Your task to perform on an android device: turn off location history Image 0: 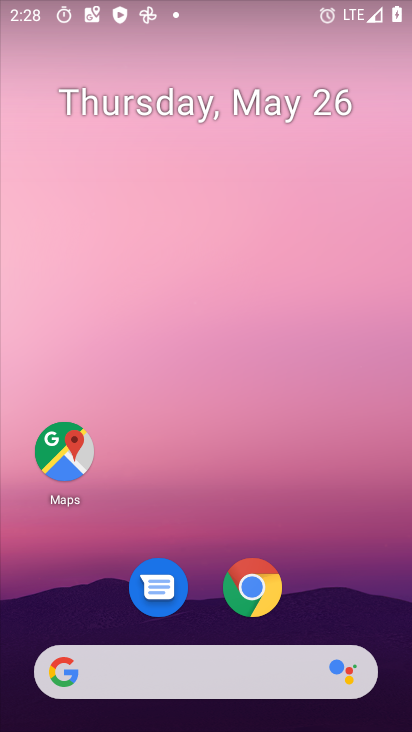
Step 0: drag from (363, 589) to (360, 208)
Your task to perform on an android device: turn off location history Image 1: 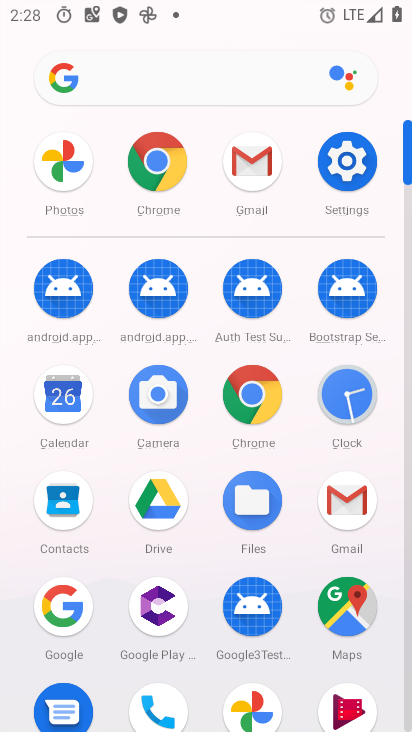
Step 1: click (352, 174)
Your task to perform on an android device: turn off location history Image 2: 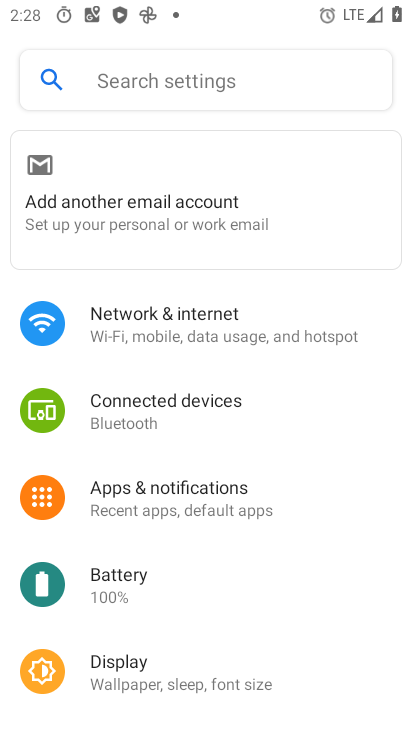
Step 2: drag from (350, 431) to (363, 345)
Your task to perform on an android device: turn off location history Image 3: 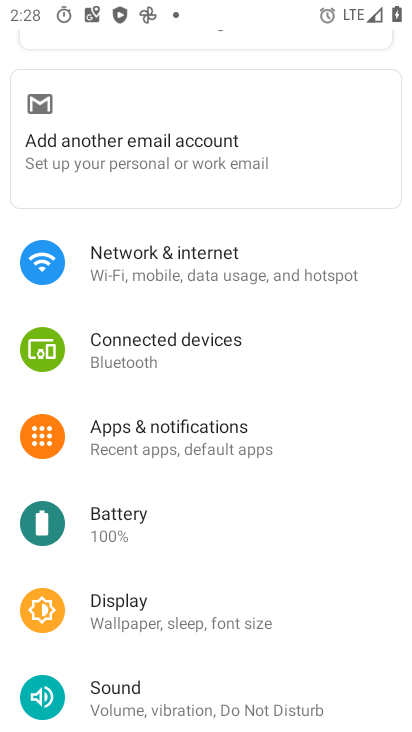
Step 3: drag from (347, 442) to (334, 349)
Your task to perform on an android device: turn off location history Image 4: 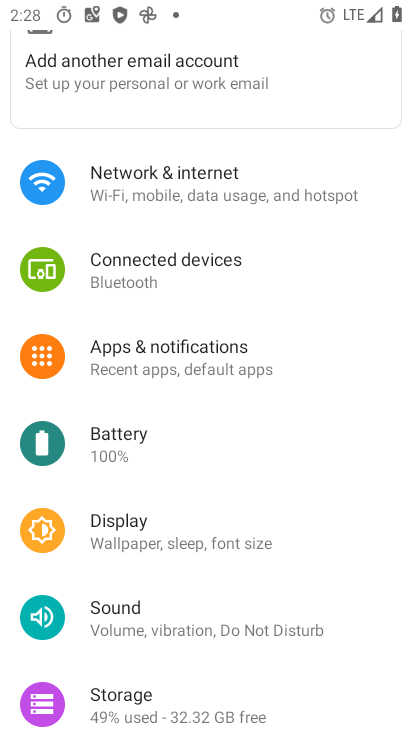
Step 4: drag from (319, 467) to (320, 366)
Your task to perform on an android device: turn off location history Image 5: 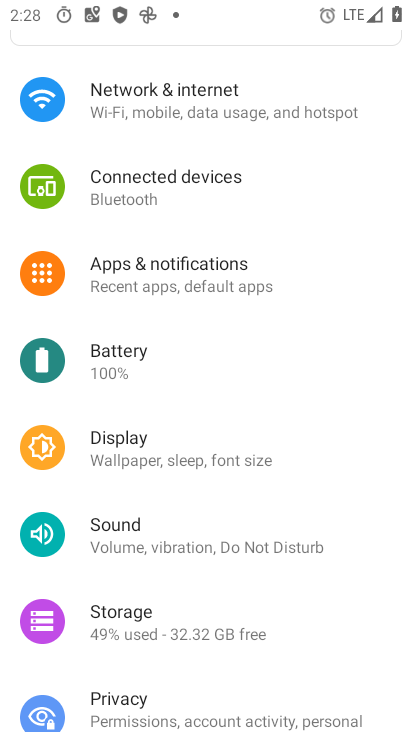
Step 5: drag from (337, 481) to (353, 396)
Your task to perform on an android device: turn off location history Image 6: 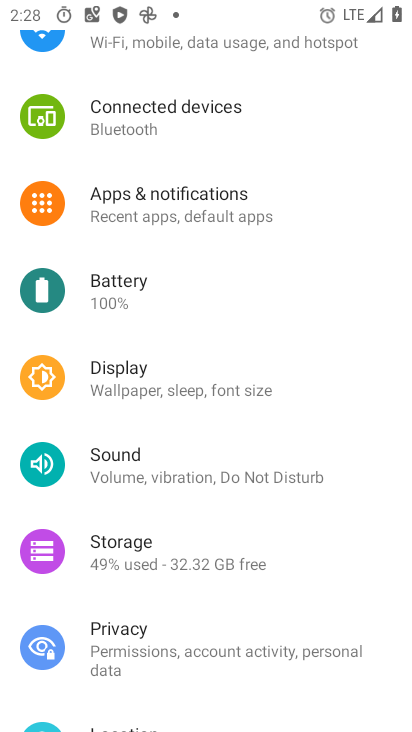
Step 6: drag from (353, 490) to (353, 401)
Your task to perform on an android device: turn off location history Image 7: 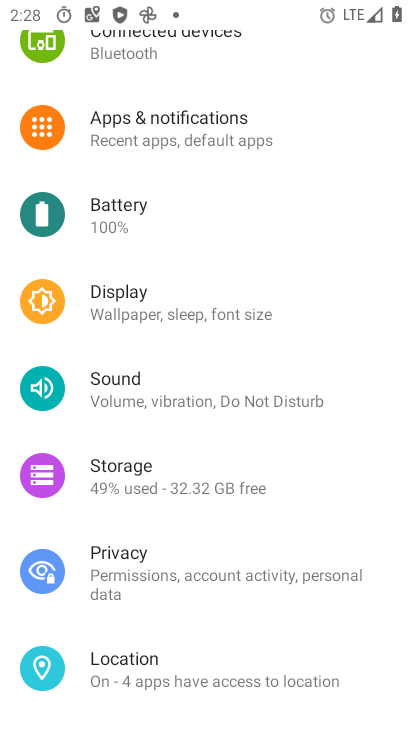
Step 7: drag from (342, 489) to (352, 405)
Your task to perform on an android device: turn off location history Image 8: 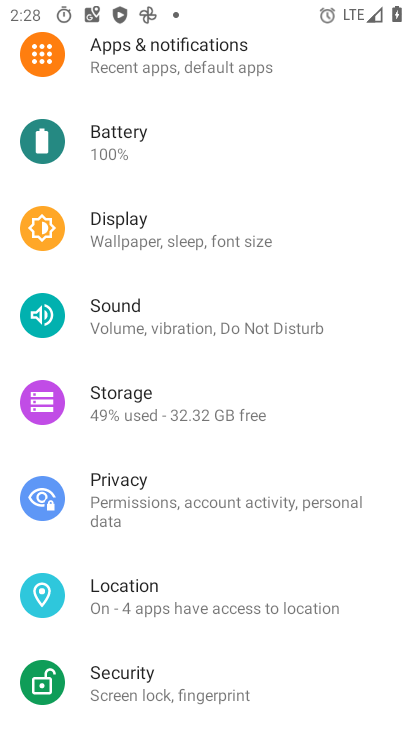
Step 8: drag from (377, 544) to (385, 429)
Your task to perform on an android device: turn off location history Image 9: 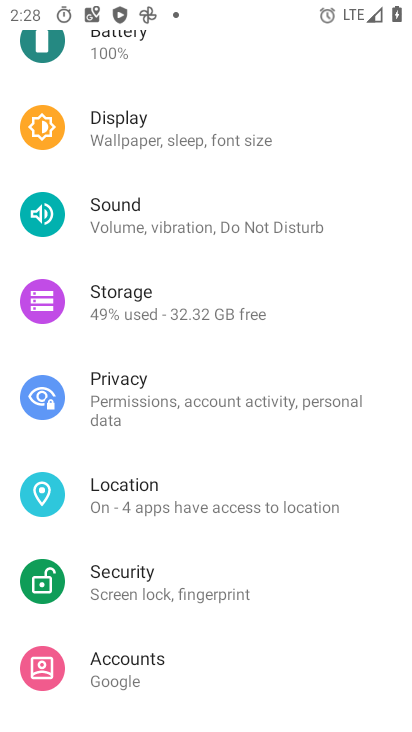
Step 9: drag from (350, 574) to (348, 471)
Your task to perform on an android device: turn off location history Image 10: 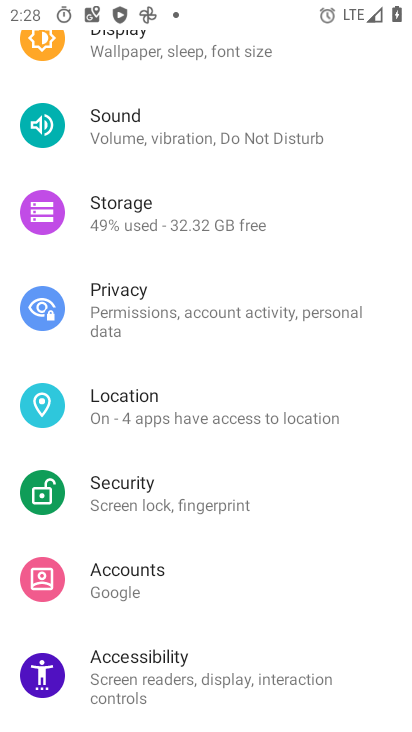
Step 10: drag from (356, 568) to (363, 450)
Your task to perform on an android device: turn off location history Image 11: 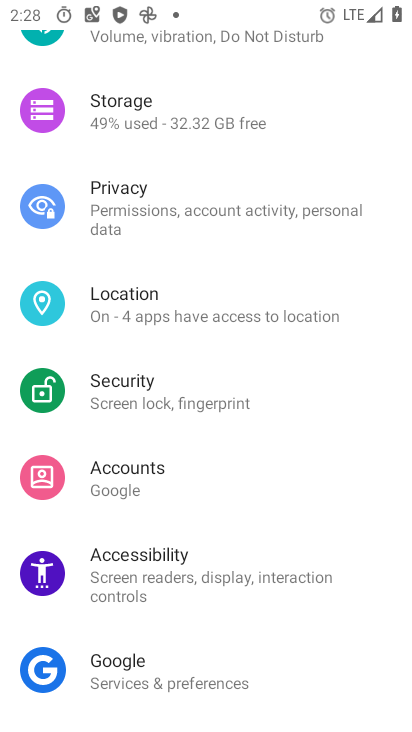
Step 11: click (310, 331)
Your task to perform on an android device: turn off location history Image 12: 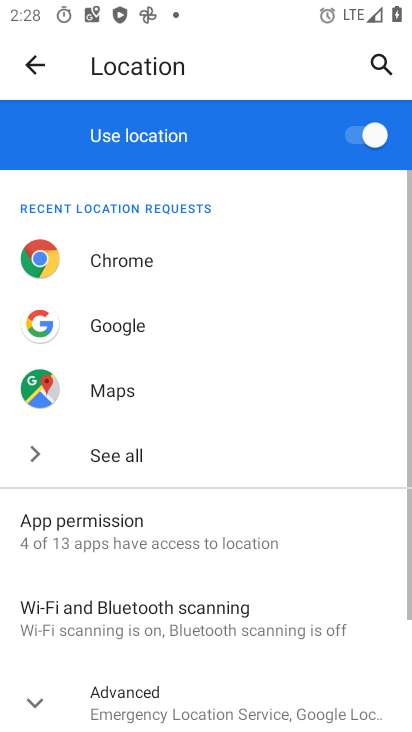
Step 12: drag from (299, 578) to (316, 456)
Your task to perform on an android device: turn off location history Image 13: 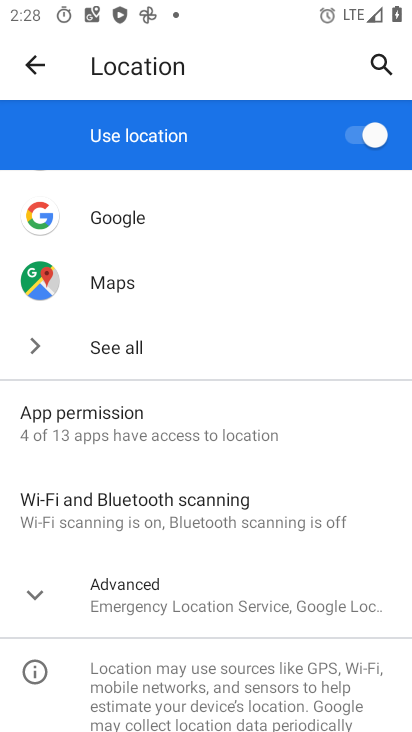
Step 13: click (330, 617)
Your task to perform on an android device: turn off location history Image 14: 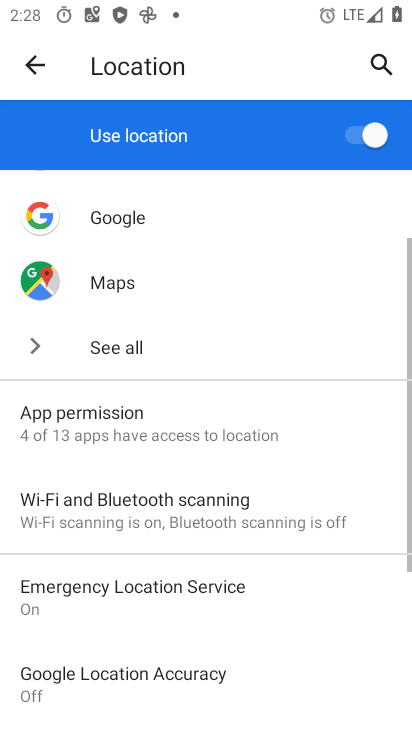
Step 14: task complete